Your task to perform on an android device: Open calendar and show me the third week of next month Image 0: 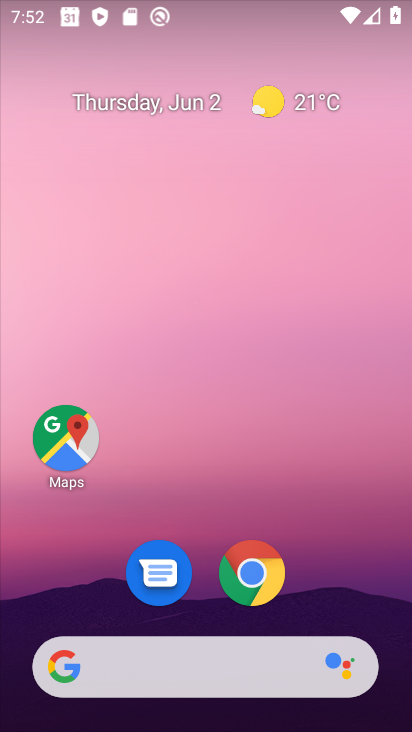
Step 0: drag from (323, 532) to (330, 171)
Your task to perform on an android device: Open calendar and show me the third week of next month Image 1: 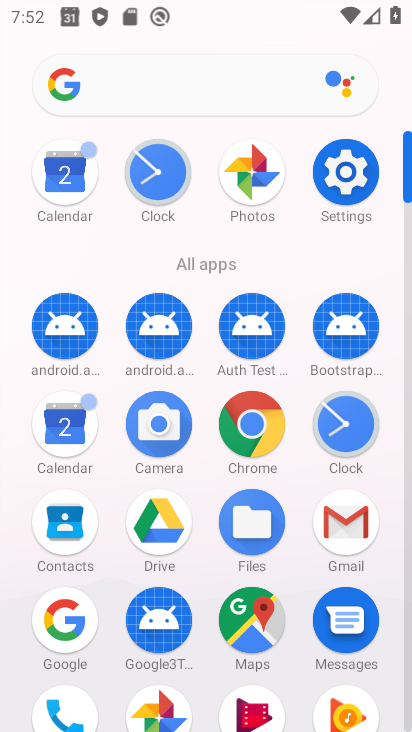
Step 1: click (67, 433)
Your task to perform on an android device: Open calendar and show me the third week of next month Image 2: 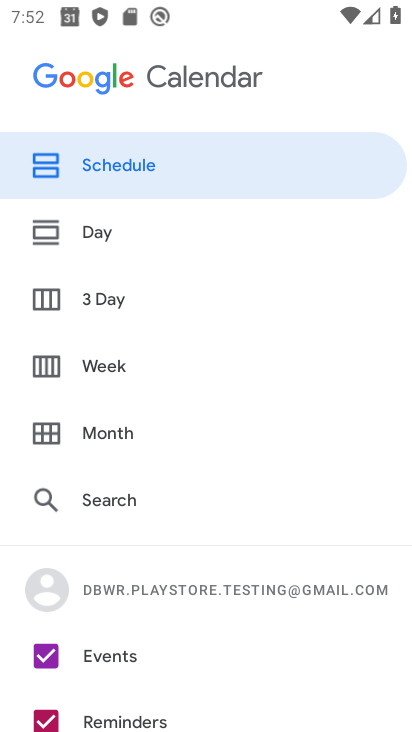
Step 2: press back button
Your task to perform on an android device: Open calendar and show me the third week of next month Image 3: 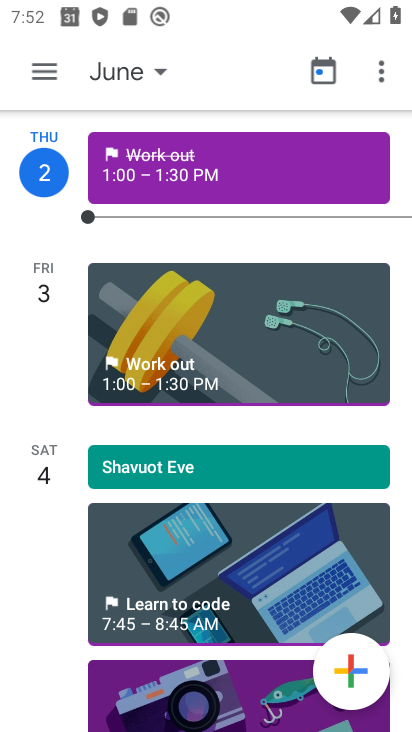
Step 3: click (162, 76)
Your task to perform on an android device: Open calendar and show me the third week of next month Image 4: 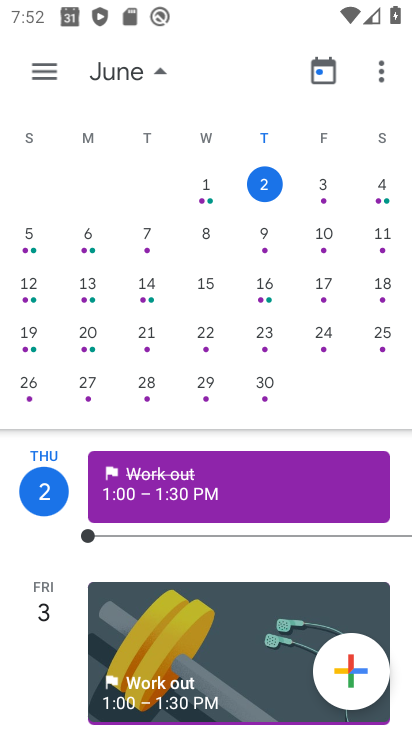
Step 4: drag from (344, 401) to (19, 314)
Your task to perform on an android device: Open calendar and show me the third week of next month Image 5: 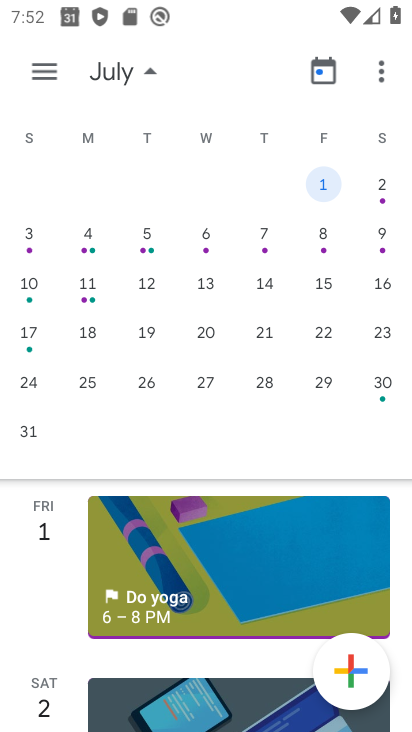
Step 5: click (375, 284)
Your task to perform on an android device: Open calendar and show me the third week of next month Image 6: 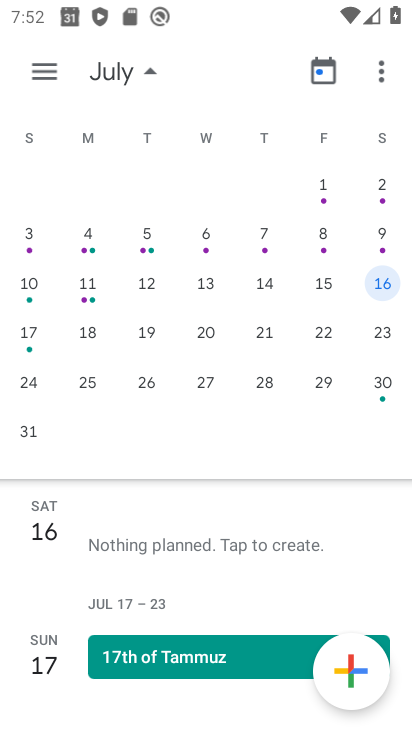
Step 6: click (87, 331)
Your task to perform on an android device: Open calendar and show me the third week of next month Image 7: 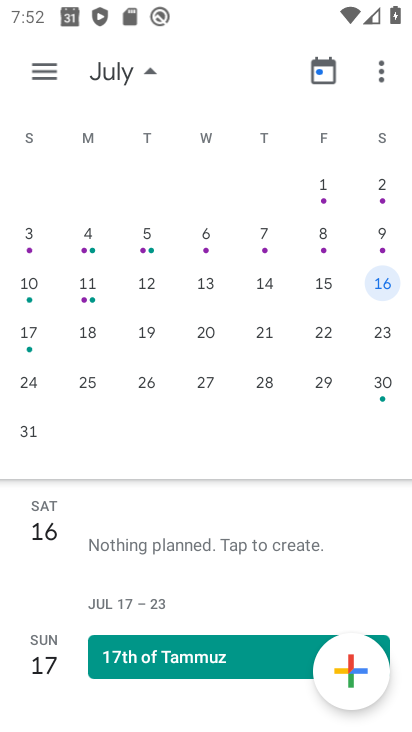
Step 7: click (91, 335)
Your task to perform on an android device: Open calendar and show me the third week of next month Image 8: 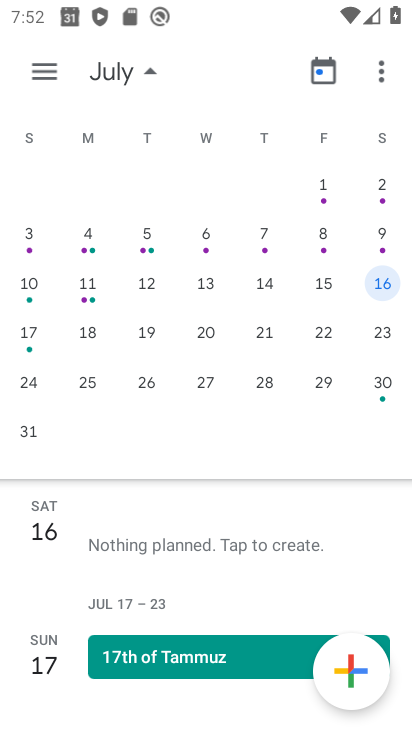
Step 8: click (91, 335)
Your task to perform on an android device: Open calendar and show me the third week of next month Image 9: 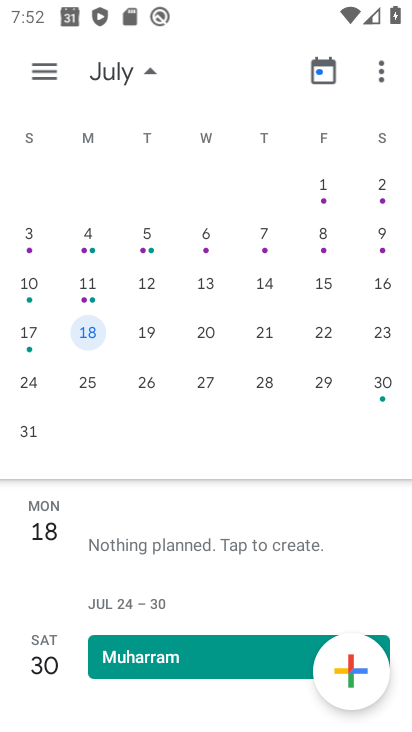
Step 9: click (83, 331)
Your task to perform on an android device: Open calendar and show me the third week of next month Image 10: 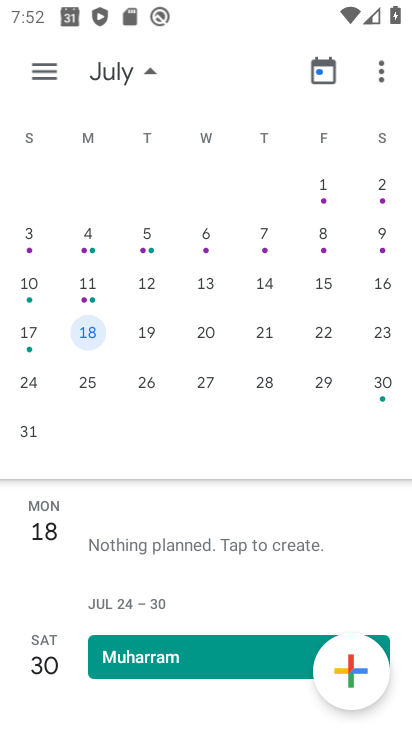
Step 10: task complete